Your task to perform on an android device: manage bookmarks in the chrome app Image 0: 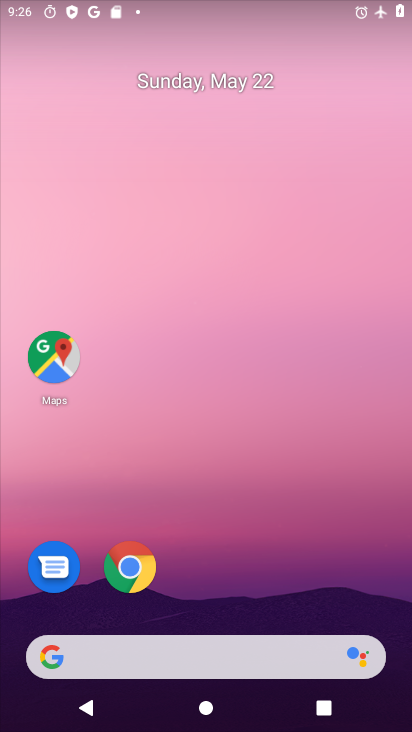
Step 0: click (134, 572)
Your task to perform on an android device: manage bookmarks in the chrome app Image 1: 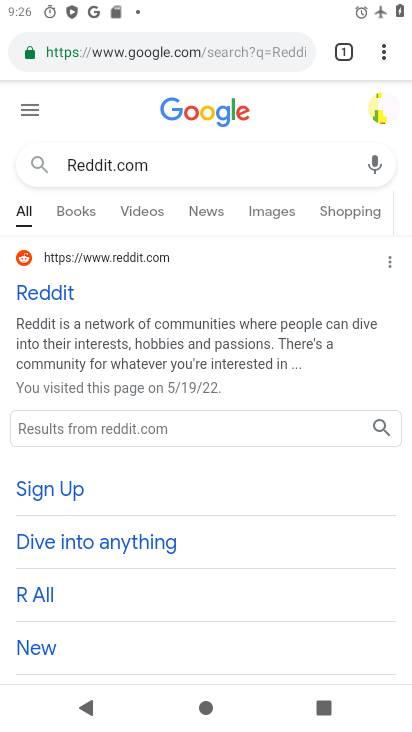
Step 1: click (390, 41)
Your task to perform on an android device: manage bookmarks in the chrome app Image 2: 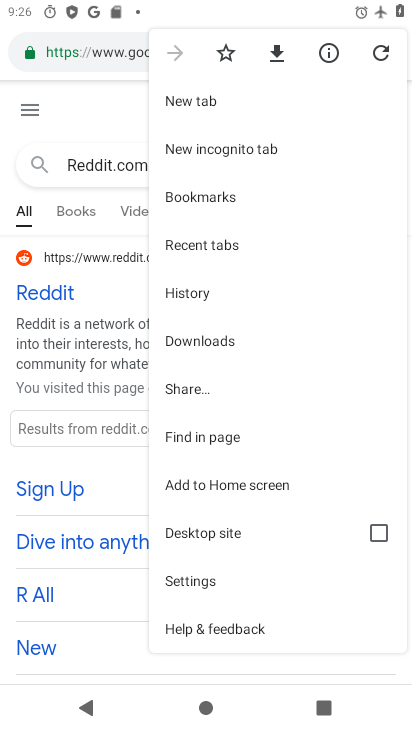
Step 2: click (217, 195)
Your task to perform on an android device: manage bookmarks in the chrome app Image 3: 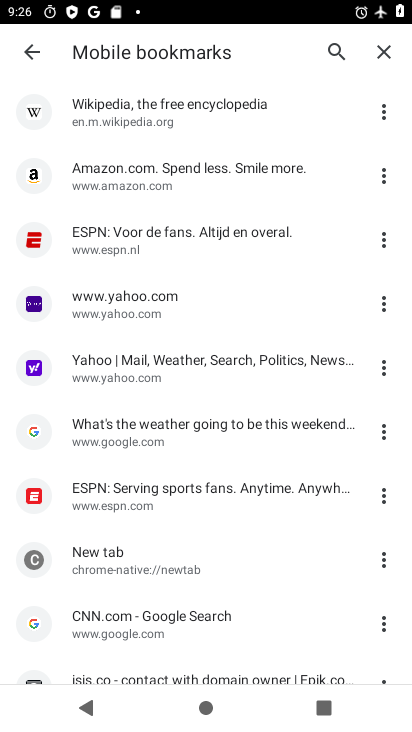
Step 3: click (379, 103)
Your task to perform on an android device: manage bookmarks in the chrome app Image 4: 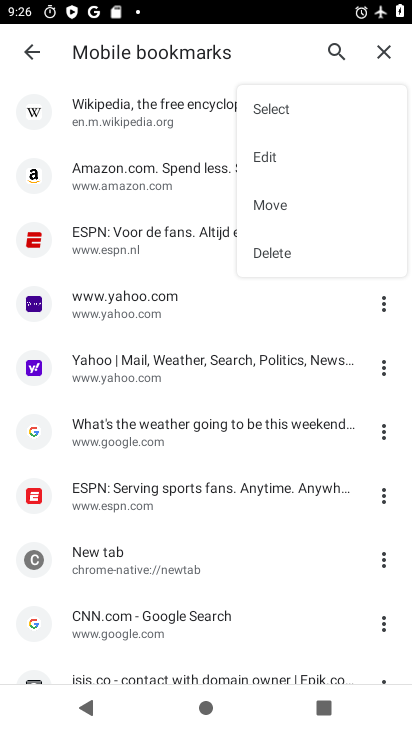
Step 4: click (289, 110)
Your task to perform on an android device: manage bookmarks in the chrome app Image 5: 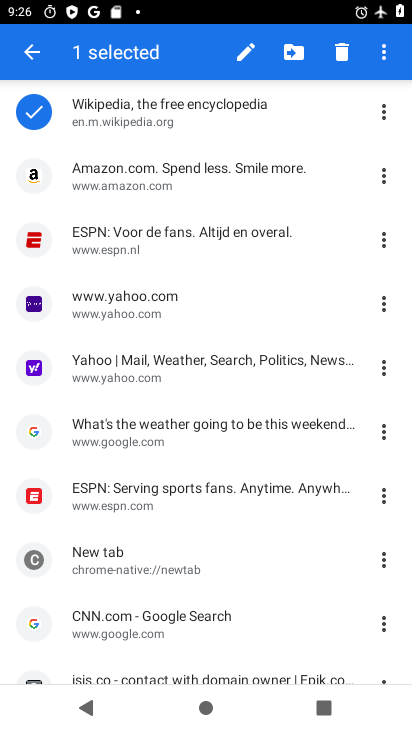
Step 5: click (164, 185)
Your task to perform on an android device: manage bookmarks in the chrome app Image 6: 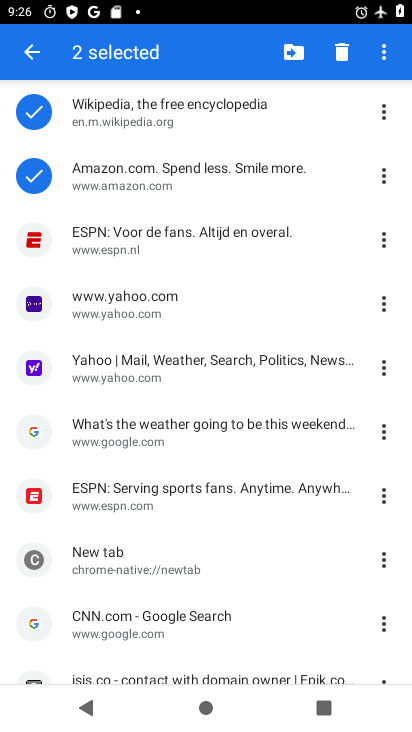
Step 6: click (130, 253)
Your task to perform on an android device: manage bookmarks in the chrome app Image 7: 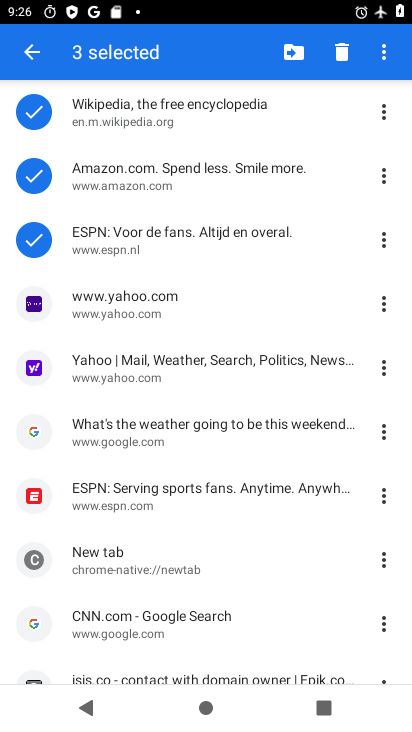
Step 7: click (122, 314)
Your task to perform on an android device: manage bookmarks in the chrome app Image 8: 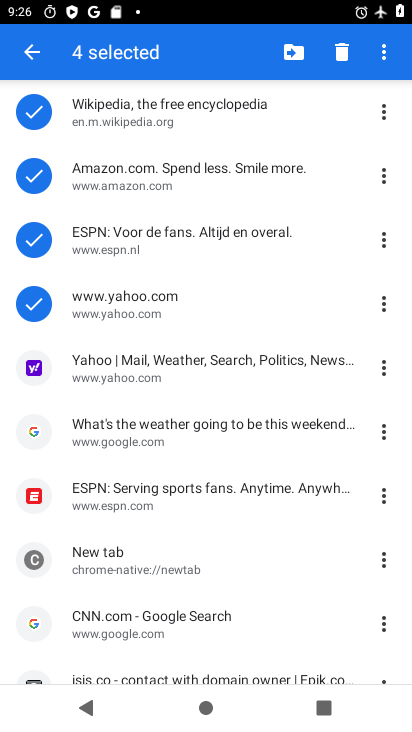
Step 8: click (118, 363)
Your task to perform on an android device: manage bookmarks in the chrome app Image 9: 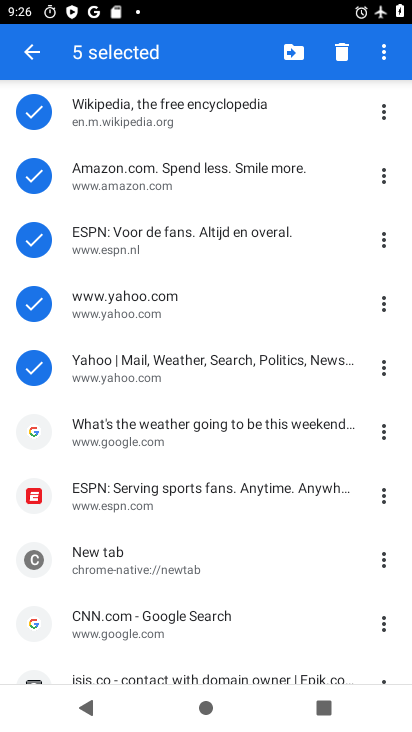
Step 9: click (101, 442)
Your task to perform on an android device: manage bookmarks in the chrome app Image 10: 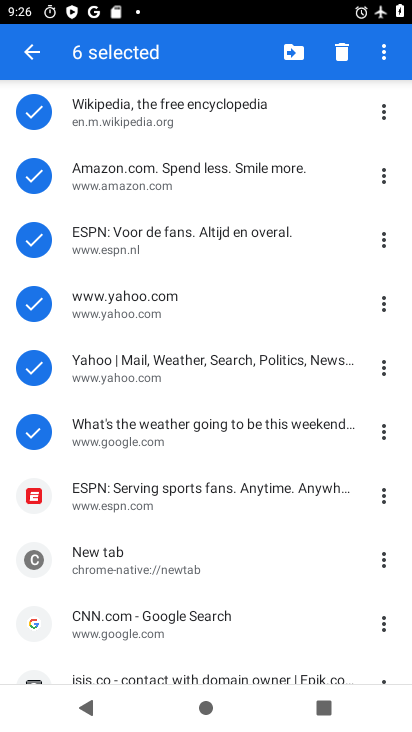
Step 10: click (97, 499)
Your task to perform on an android device: manage bookmarks in the chrome app Image 11: 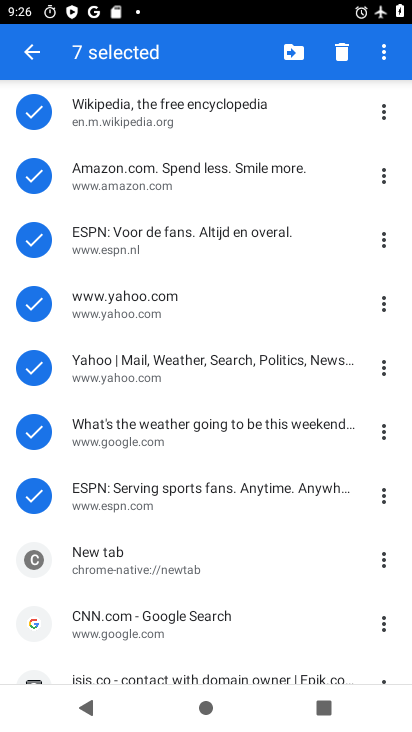
Step 11: click (96, 625)
Your task to perform on an android device: manage bookmarks in the chrome app Image 12: 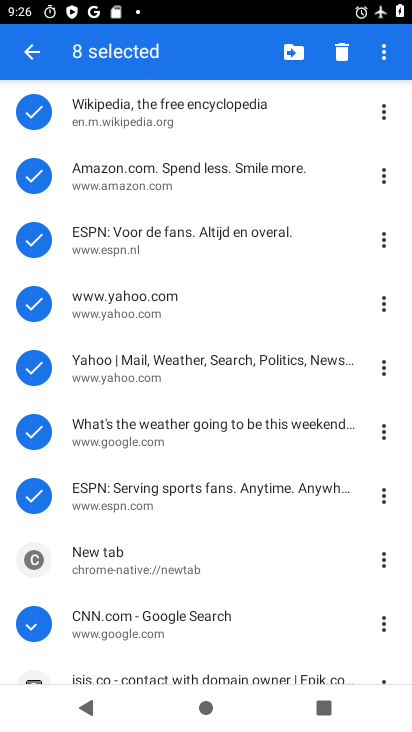
Step 12: drag from (100, 644) to (202, 147)
Your task to perform on an android device: manage bookmarks in the chrome app Image 13: 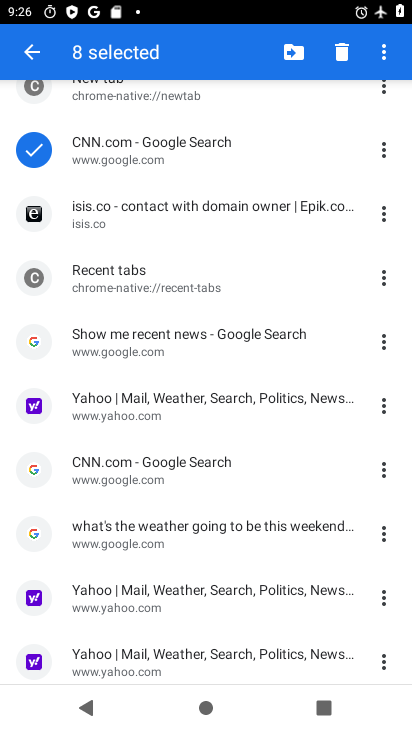
Step 13: click (117, 251)
Your task to perform on an android device: manage bookmarks in the chrome app Image 14: 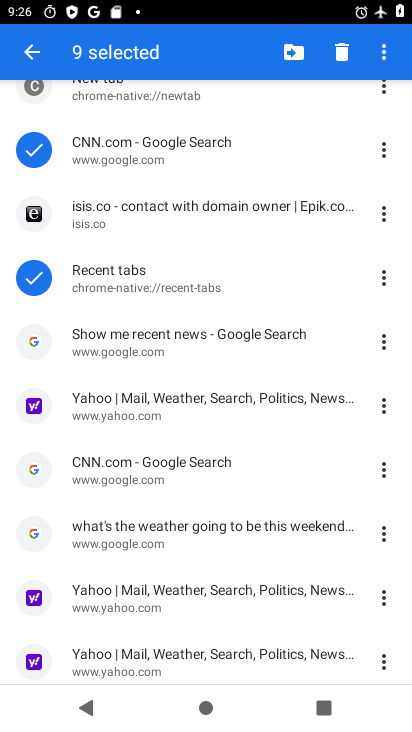
Step 14: click (109, 400)
Your task to perform on an android device: manage bookmarks in the chrome app Image 15: 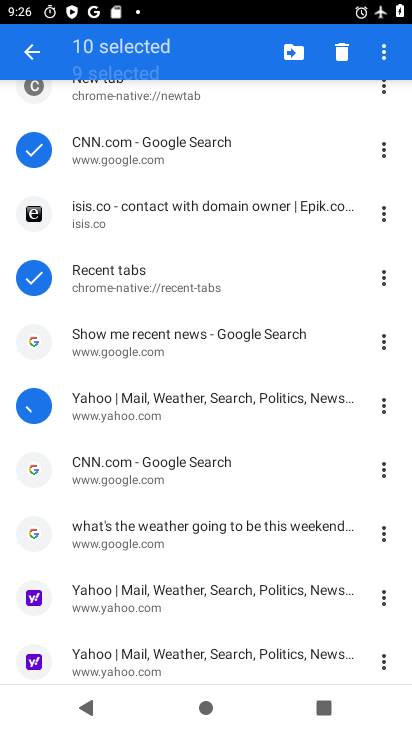
Step 15: click (118, 333)
Your task to perform on an android device: manage bookmarks in the chrome app Image 16: 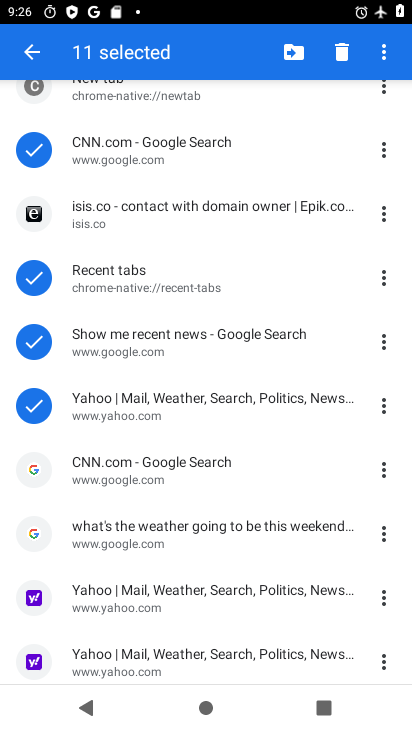
Step 16: click (142, 552)
Your task to perform on an android device: manage bookmarks in the chrome app Image 17: 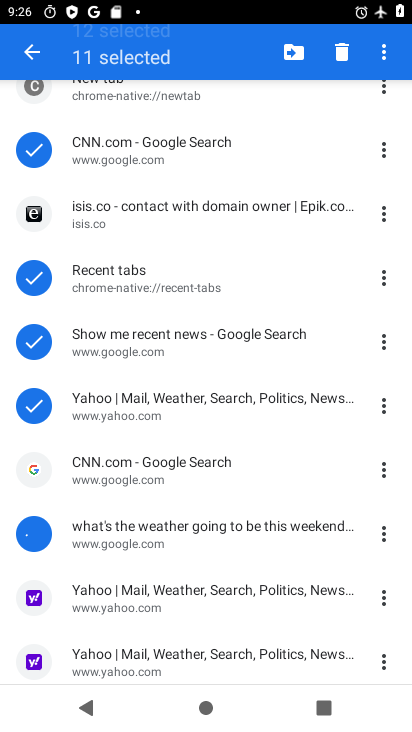
Step 17: click (134, 460)
Your task to perform on an android device: manage bookmarks in the chrome app Image 18: 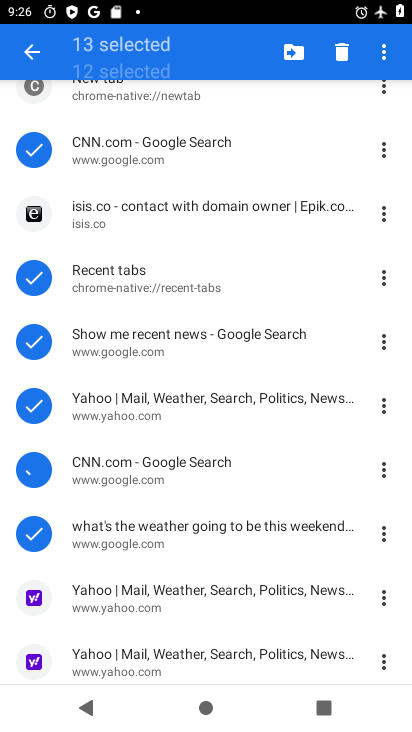
Step 18: click (144, 615)
Your task to perform on an android device: manage bookmarks in the chrome app Image 19: 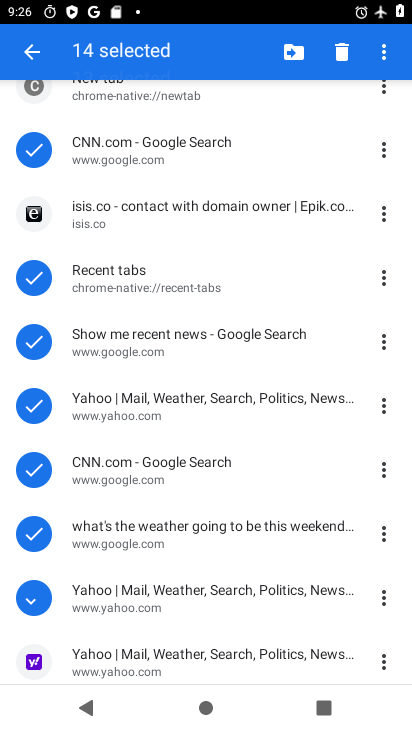
Step 19: click (132, 659)
Your task to perform on an android device: manage bookmarks in the chrome app Image 20: 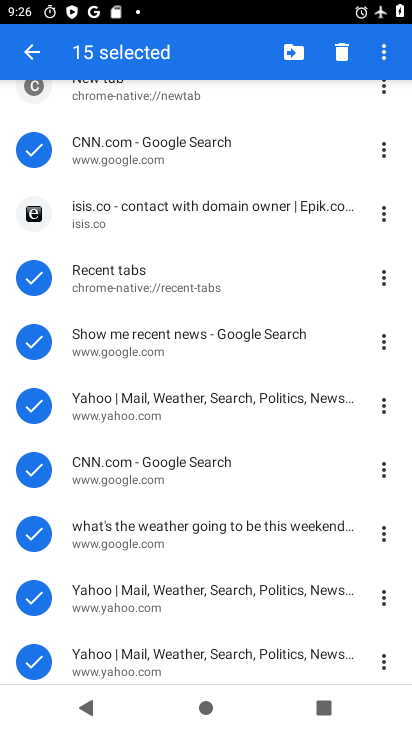
Step 20: click (117, 209)
Your task to perform on an android device: manage bookmarks in the chrome app Image 21: 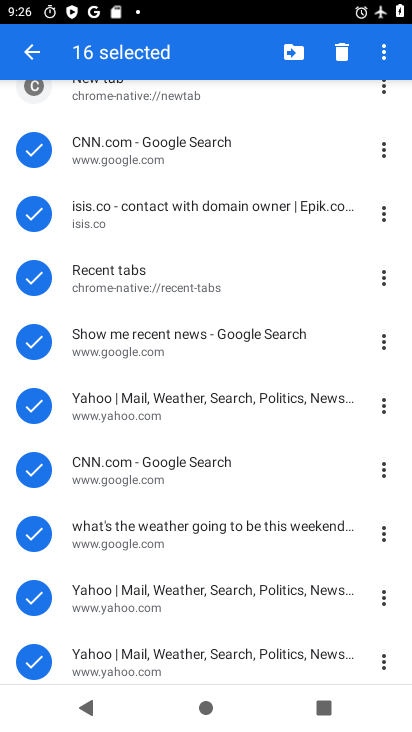
Step 21: click (147, 97)
Your task to perform on an android device: manage bookmarks in the chrome app Image 22: 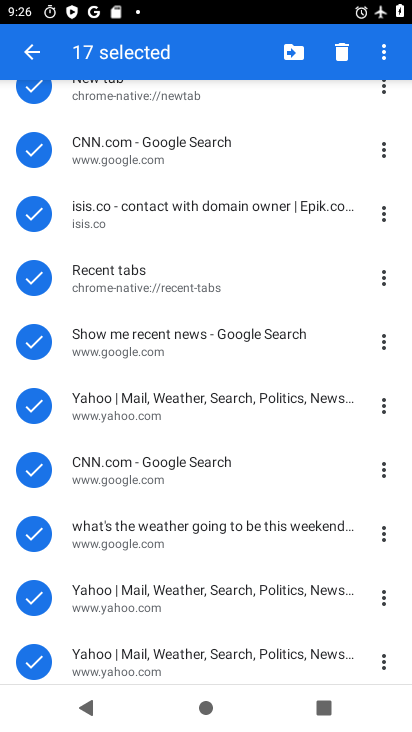
Step 22: click (297, 54)
Your task to perform on an android device: manage bookmarks in the chrome app Image 23: 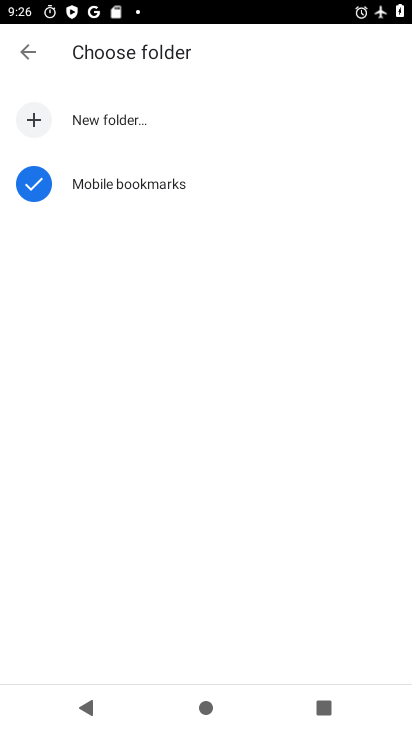
Step 23: click (105, 182)
Your task to perform on an android device: manage bookmarks in the chrome app Image 24: 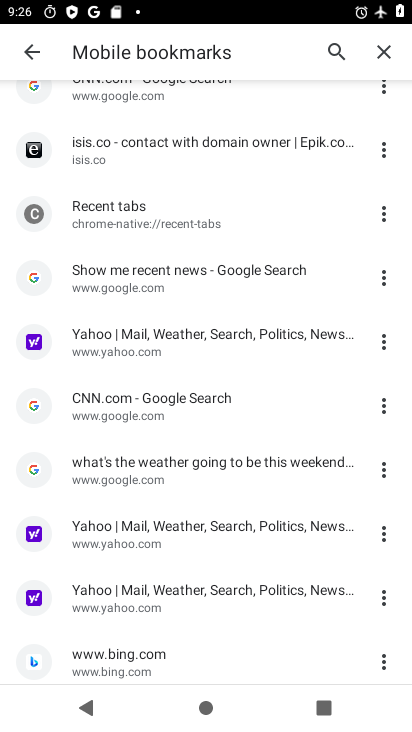
Step 24: task complete